Your task to perform on an android device: Add "sony triple a" to the cart on amazon Image 0: 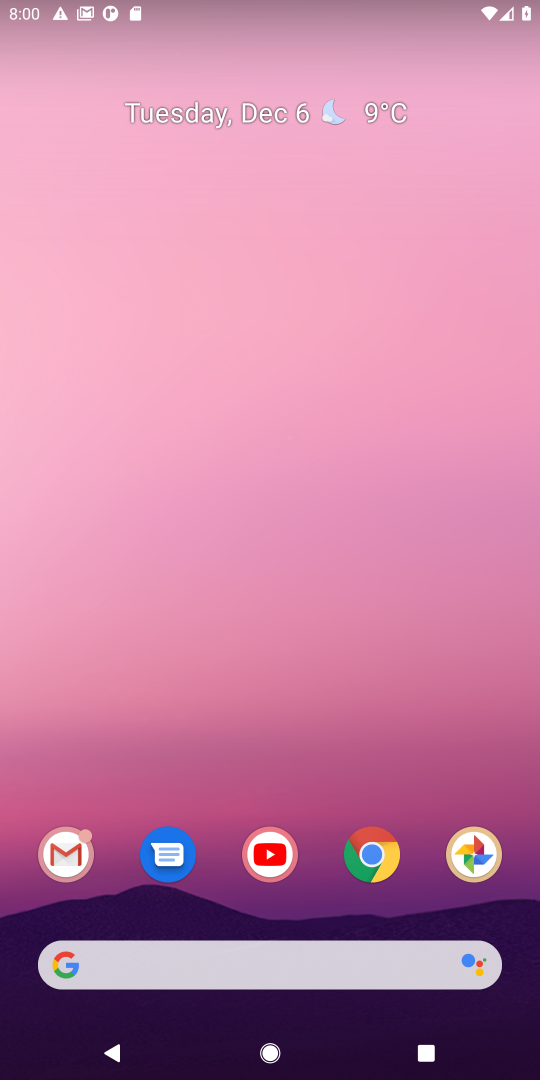
Step 0: click (381, 850)
Your task to perform on an android device: Add "sony triple a" to the cart on amazon Image 1: 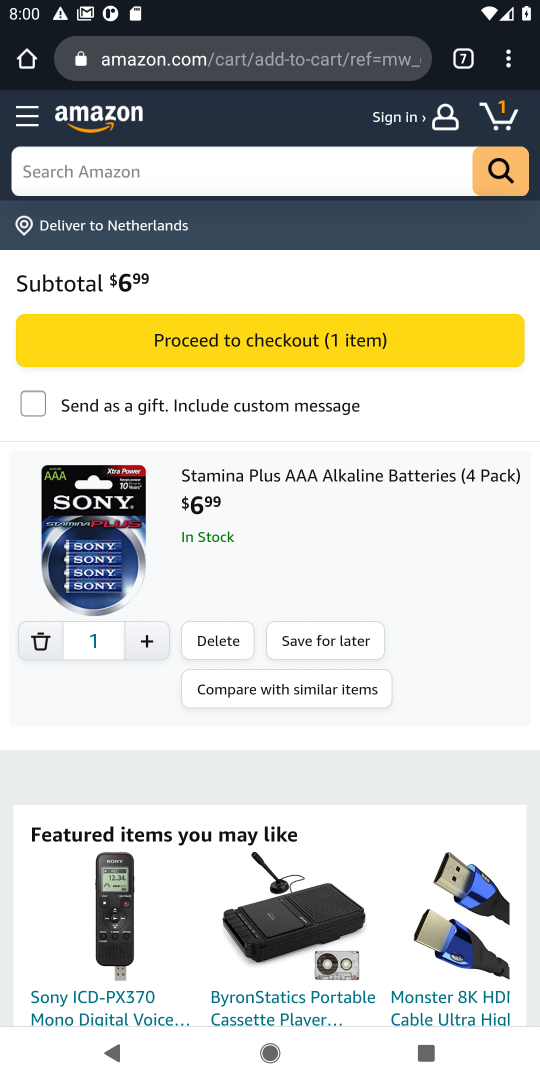
Step 1: click (303, 475)
Your task to perform on an android device: Add "sony triple a" to the cart on amazon Image 2: 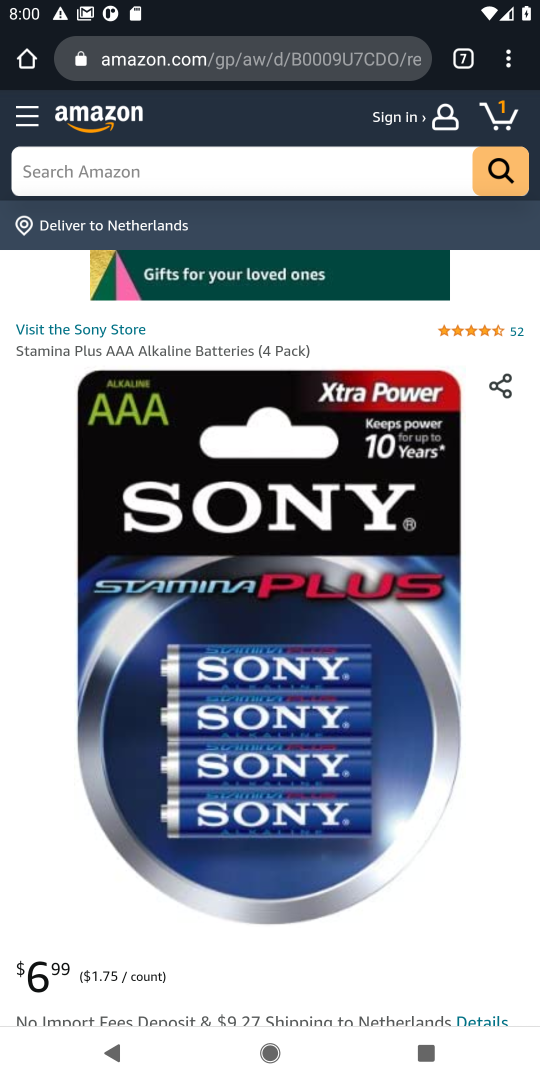
Step 2: drag from (312, 940) to (379, 135)
Your task to perform on an android device: Add "sony triple a" to the cart on amazon Image 3: 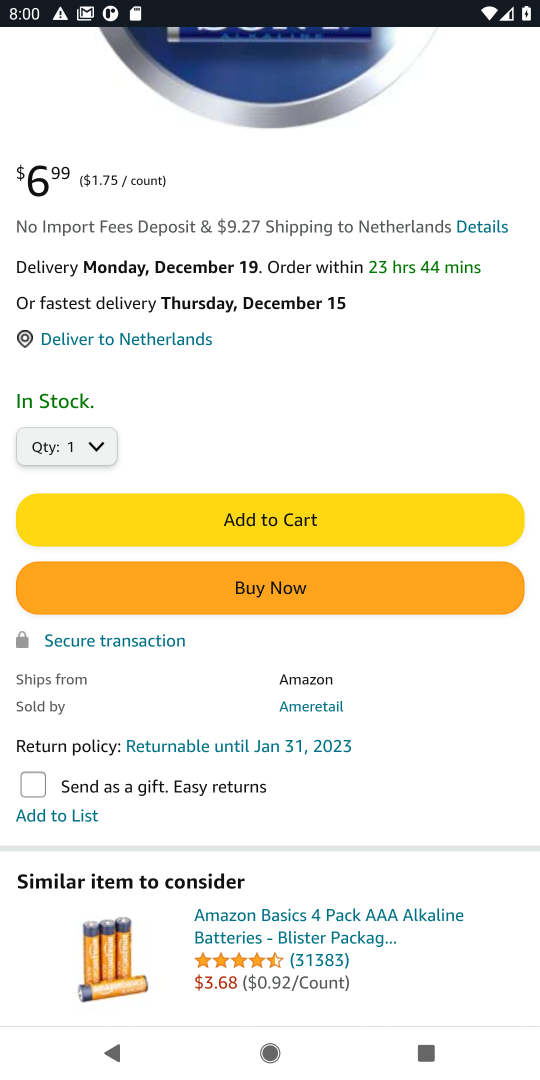
Step 3: click (330, 518)
Your task to perform on an android device: Add "sony triple a" to the cart on amazon Image 4: 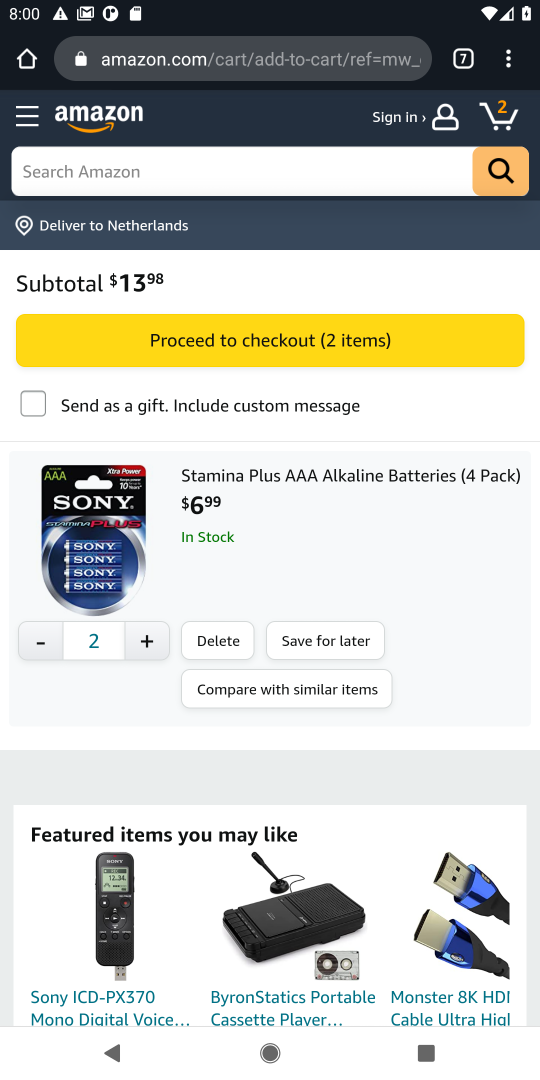
Step 4: task complete